Your task to perform on an android device: star an email in the gmail app Image 0: 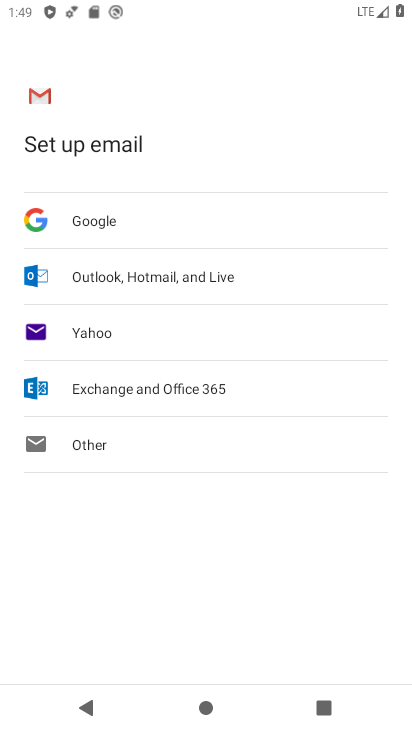
Step 0: press home button
Your task to perform on an android device: star an email in the gmail app Image 1: 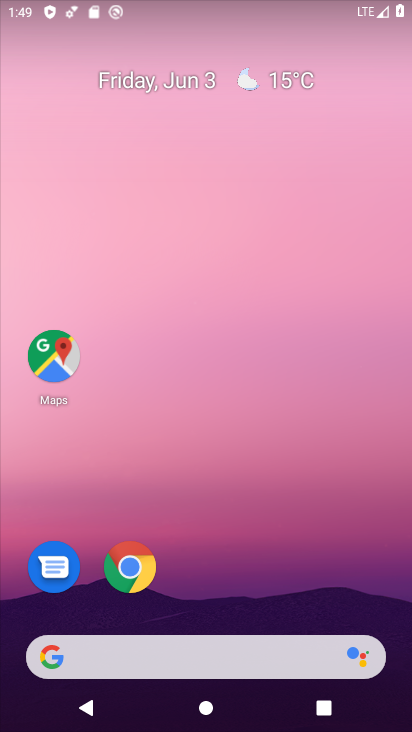
Step 1: drag from (231, 627) to (298, 148)
Your task to perform on an android device: star an email in the gmail app Image 2: 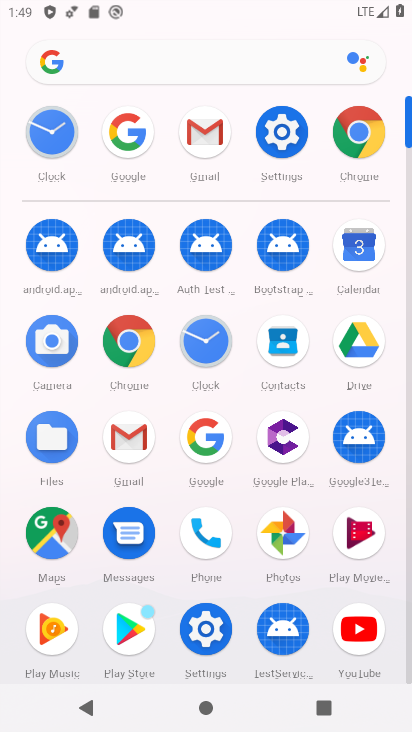
Step 2: click (134, 439)
Your task to perform on an android device: star an email in the gmail app Image 3: 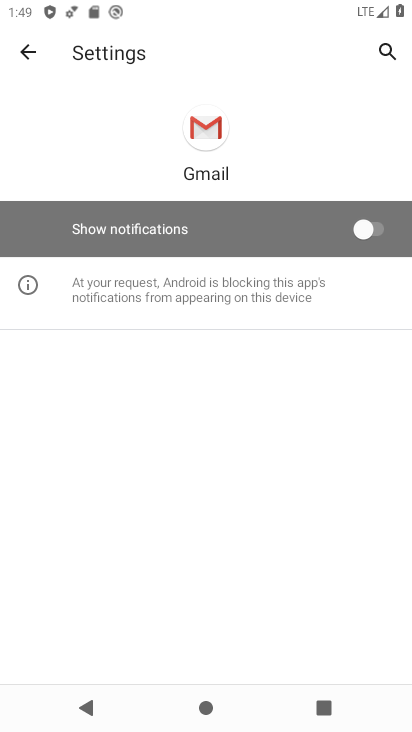
Step 3: click (29, 54)
Your task to perform on an android device: star an email in the gmail app Image 4: 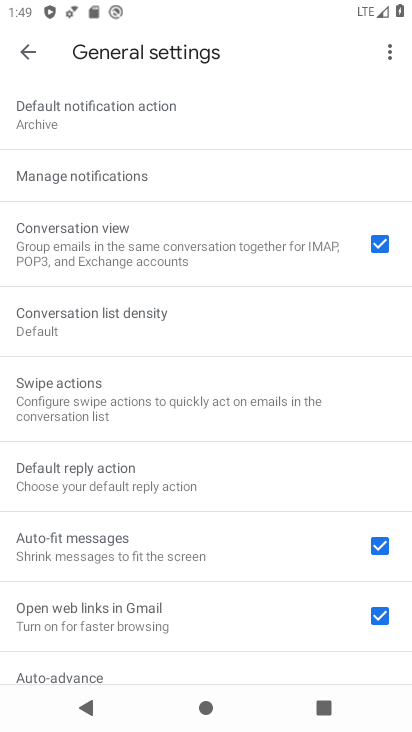
Step 4: click (29, 54)
Your task to perform on an android device: star an email in the gmail app Image 5: 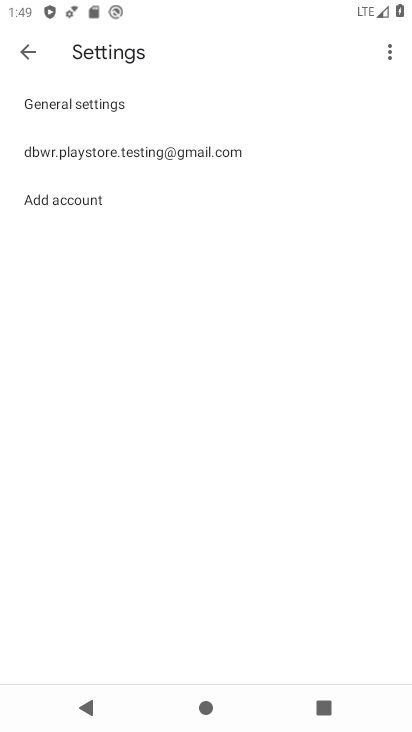
Step 5: click (29, 51)
Your task to perform on an android device: star an email in the gmail app Image 6: 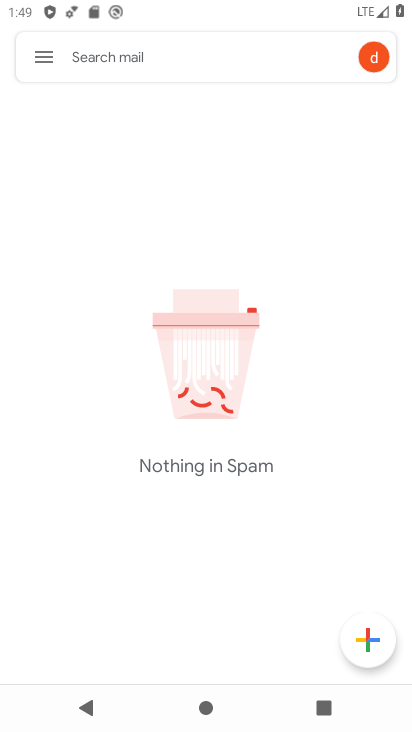
Step 6: click (42, 56)
Your task to perform on an android device: star an email in the gmail app Image 7: 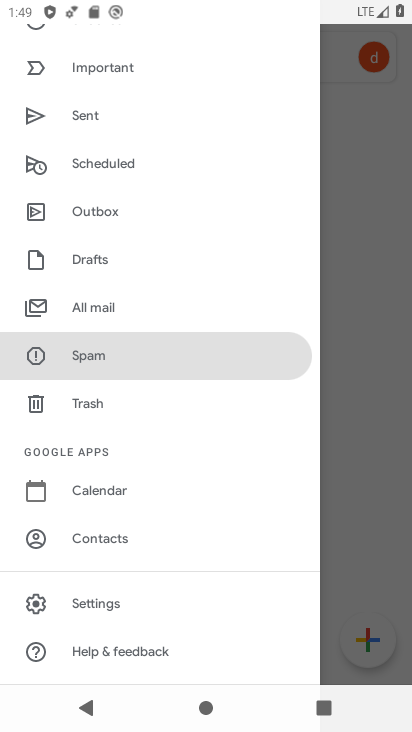
Step 7: drag from (110, 106) to (132, 361)
Your task to perform on an android device: star an email in the gmail app Image 8: 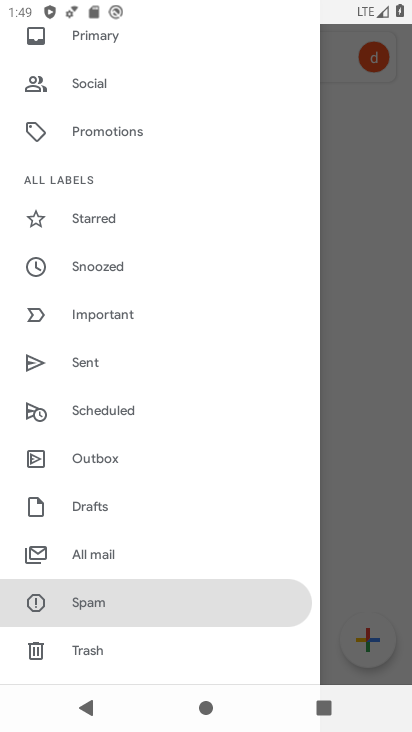
Step 8: drag from (118, 31) to (102, 323)
Your task to perform on an android device: star an email in the gmail app Image 9: 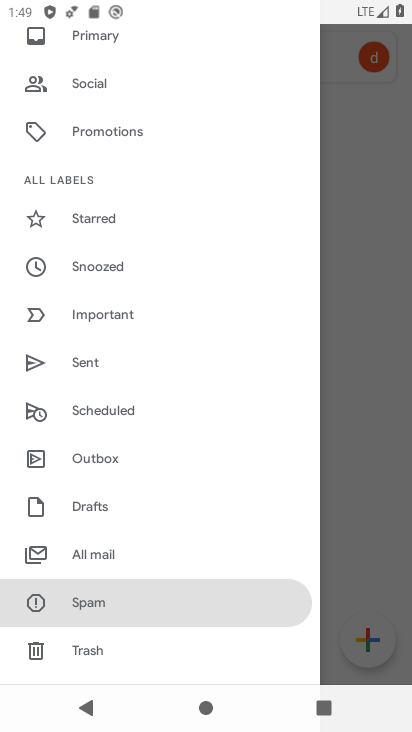
Step 9: click (108, 36)
Your task to perform on an android device: star an email in the gmail app Image 10: 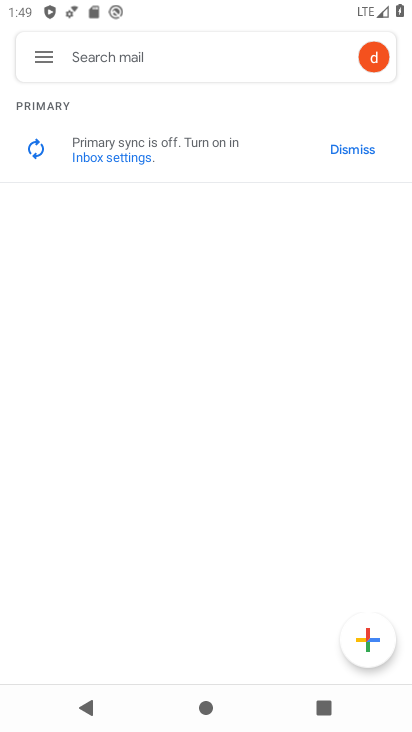
Step 10: task complete